Your task to perform on an android device: show emergency info Image 0: 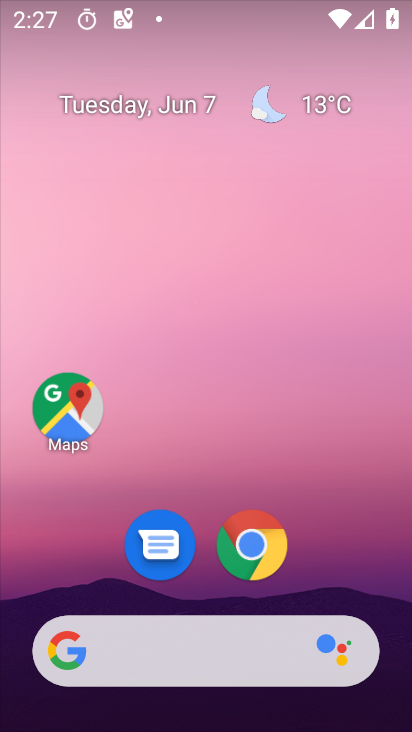
Step 0: drag from (340, 561) to (275, 5)
Your task to perform on an android device: show emergency info Image 1: 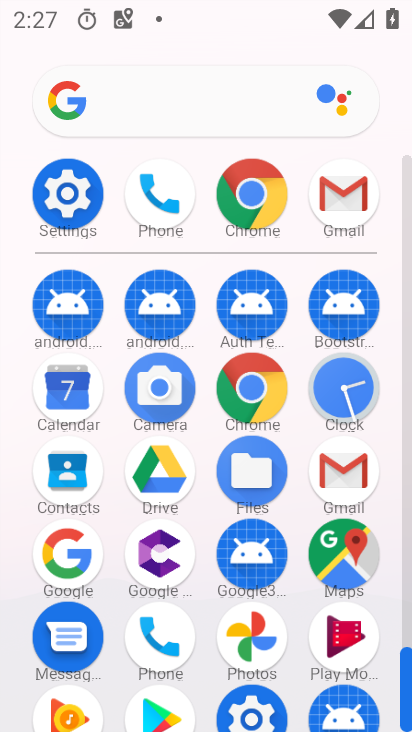
Step 1: click (79, 193)
Your task to perform on an android device: show emergency info Image 2: 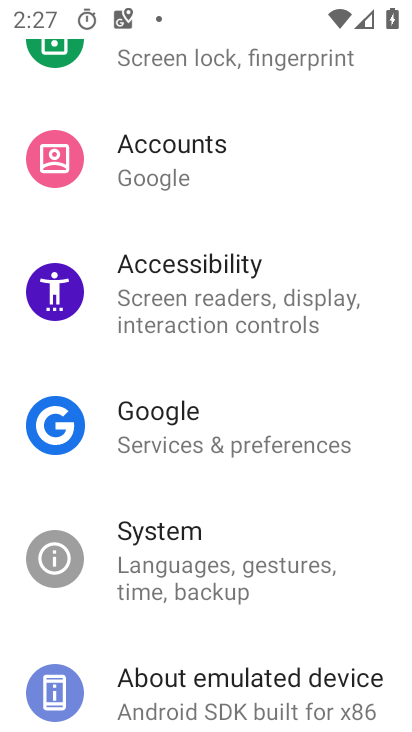
Step 2: drag from (332, 582) to (290, 76)
Your task to perform on an android device: show emergency info Image 3: 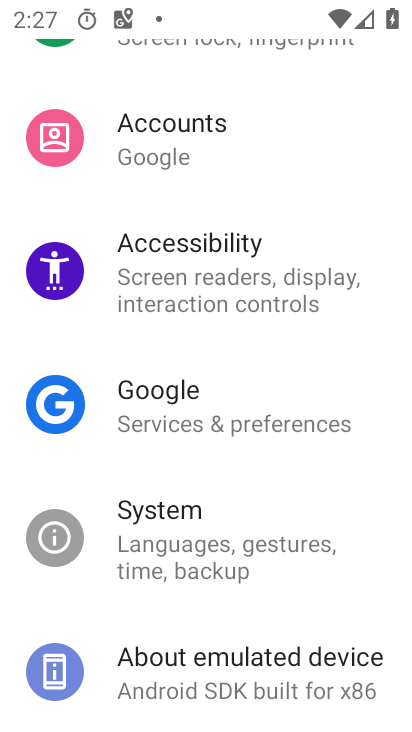
Step 3: drag from (228, 671) to (246, 320)
Your task to perform on an android device: show emergency info Image 4: 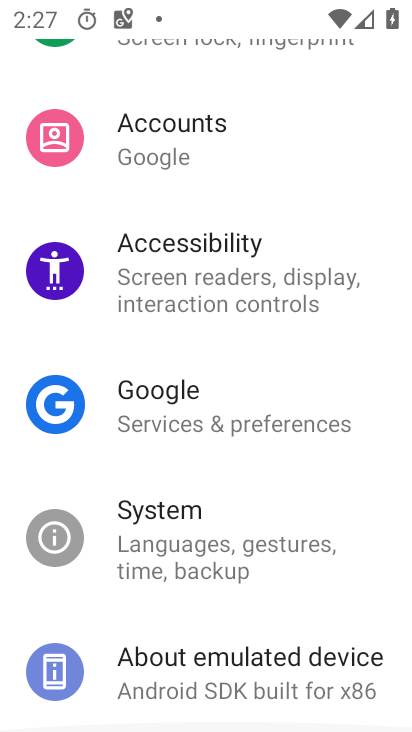
Step 4: click (229, 668)
Your task to perform on an android device: show emergency info Image 5: 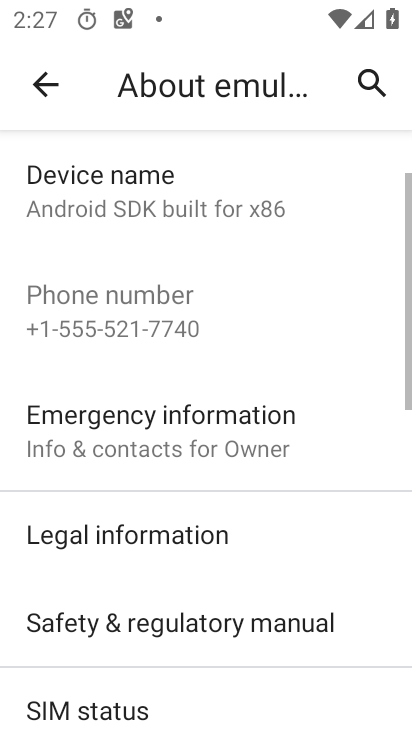
Step 5: click (199, 409)
Your task to perform on an android device: show emergency info Image 6: 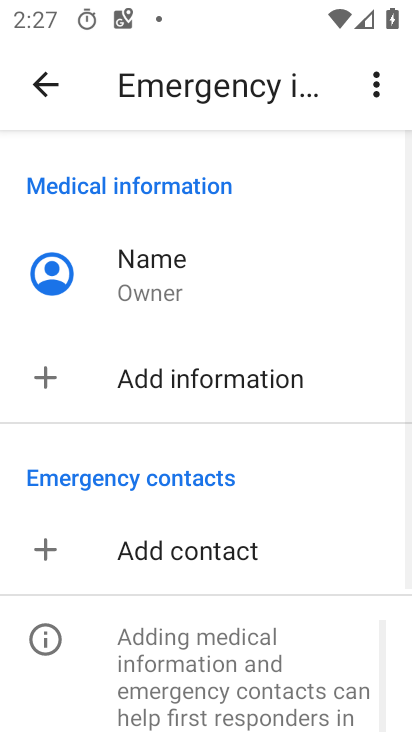
Step 6: task complete